Your task to perform on an android device: Open accessibility settings Image 0: 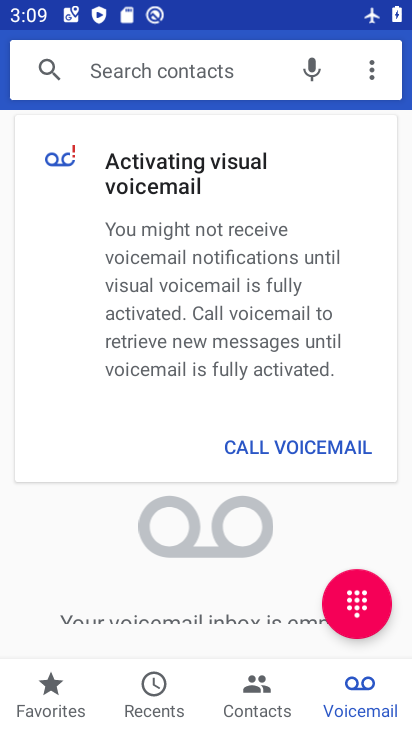
Step 0: press home button
Your task to perform on an android device: Open accessibility settings Image 1: 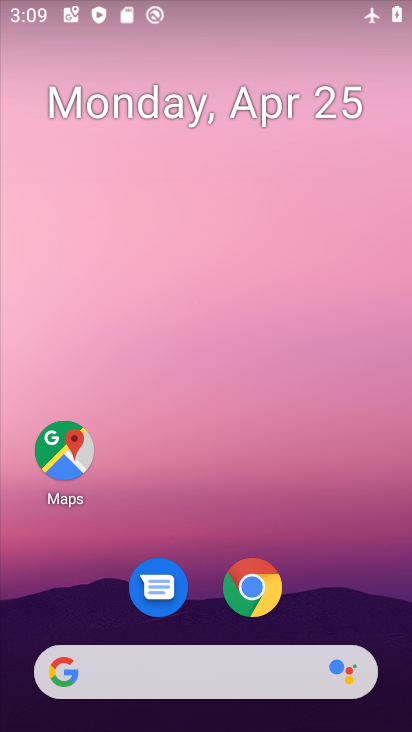
Step 1: drag from (196, 632) to (124, 113)
Your task to perform on an android device: Open accessibility settings Image 2: 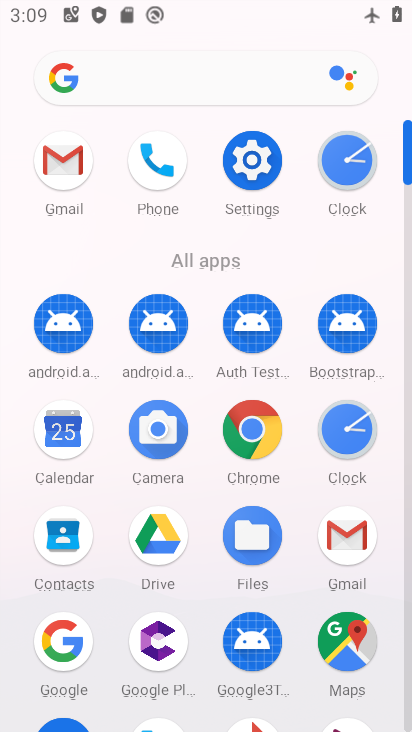
Step 2: click (253, 161)
Your task to perform on an android device: Open accessibility settings Image 3: 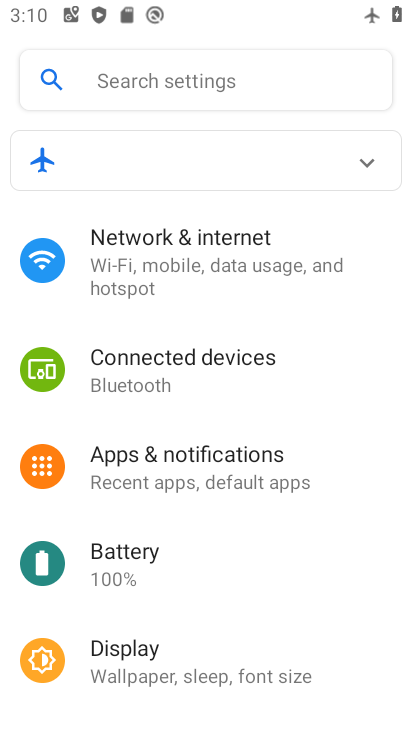
Step 3: drag from (269, 611) to (365, 64)
Your task to perform on an android device: Open accessibility settings Image 4: 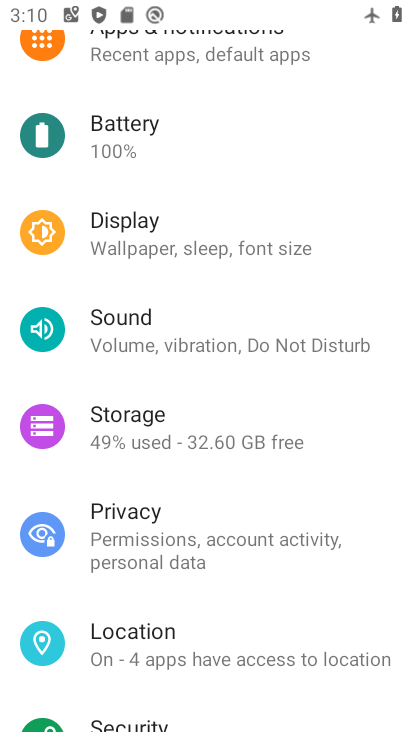
Step 4: drag from (214, 311) to (217, 250)
Your task to perform on an android device: Open accessibility settings Image 5: 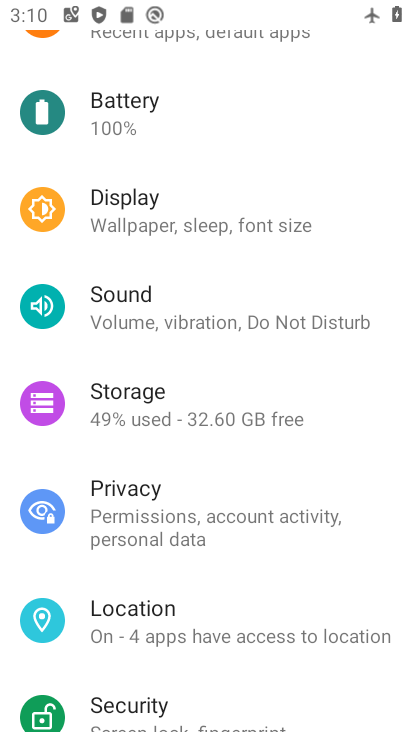
Step 5: drag from (244, 664) to (270, 252)
Your task to perform on an android device: Open accessibility settings Image 6: 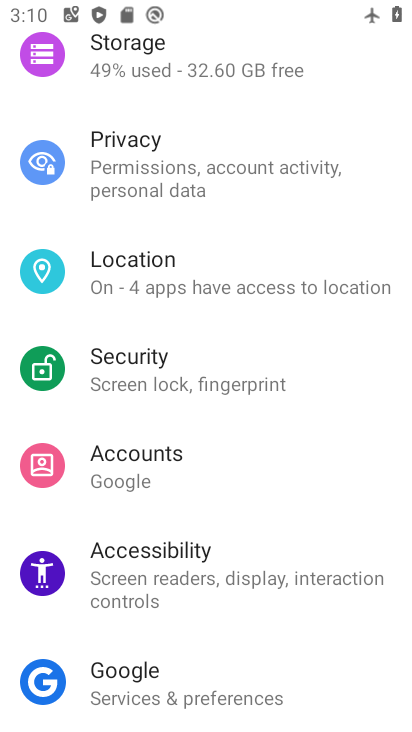
Step 6: click (162, 560)
Your task to perform on an android device: Open accessibility settings Image 7: 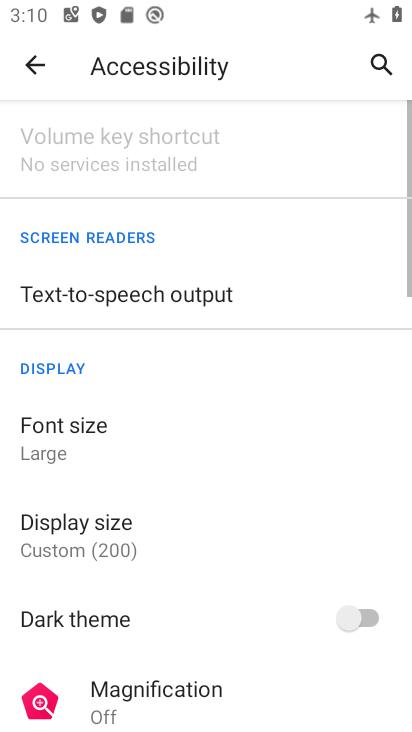
Step 7: task complete